Your task to perform on an android device: Go to internet settings Image 0: 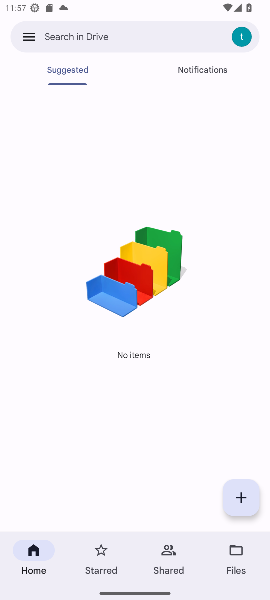
Step 0: press home button
Your task to perform on an android device: Go to internet settings Image 1: 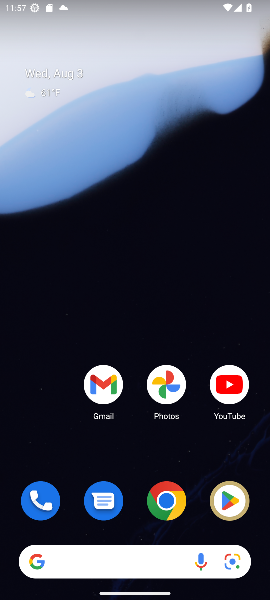
Step 1: drag from (147, 435) to (109, 6)
Your task to perform on an android device: Go to internet settings Image 2: 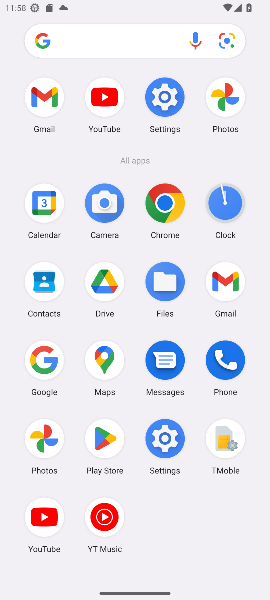
Step 2: click (174, 446)
Your task to perform on an android device: Go to internet settings Image 3: 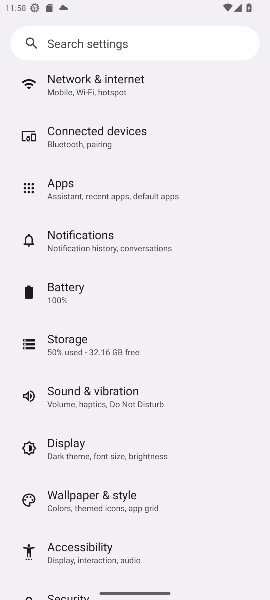
Step 3: click (97, 85)
Your task to perform on an android device: Go to internet settings Image 4: 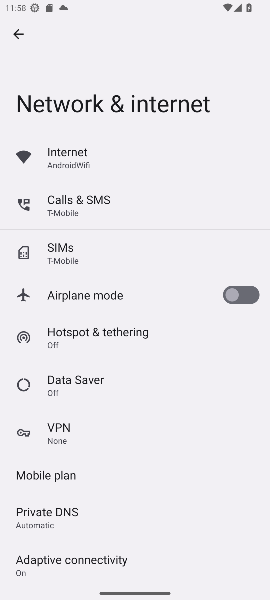
Step 4: click (99, 154)
Your task to perform on an android device: Go to internet settings Image 5: 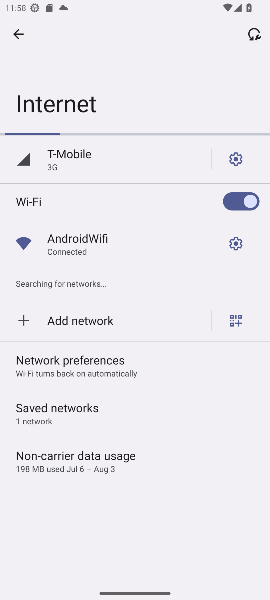
Step 5: click (90, 163)
Your task to perform on an android device: Go to internet settings Image 6: 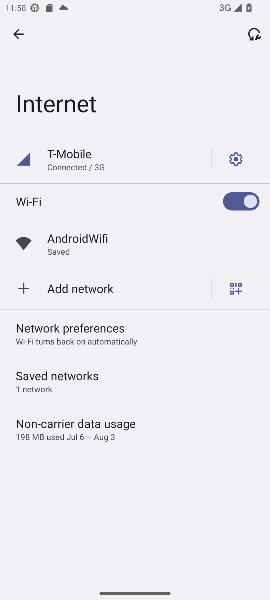
Step 6: click (184, 166)
Your task to perform on an android device: Go to internet settings Image 7: 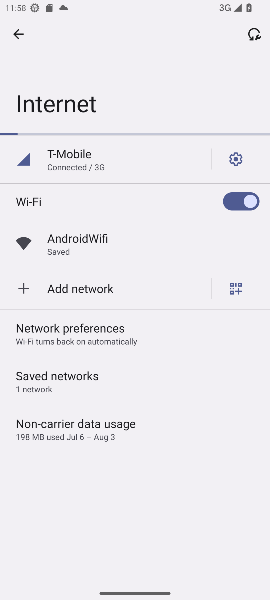
Step 7: click (233, 162)
Your task to perform on an android device: Go to internet settings Image 8: 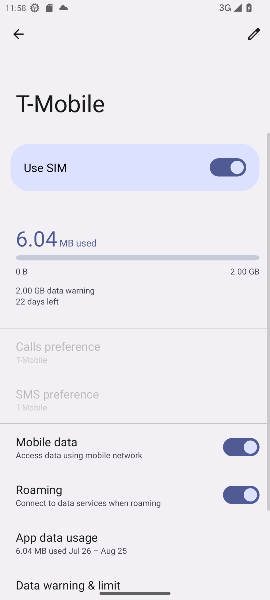
Step 8: task complete